Your task to perform on an android device: Open notification settings Image 0: 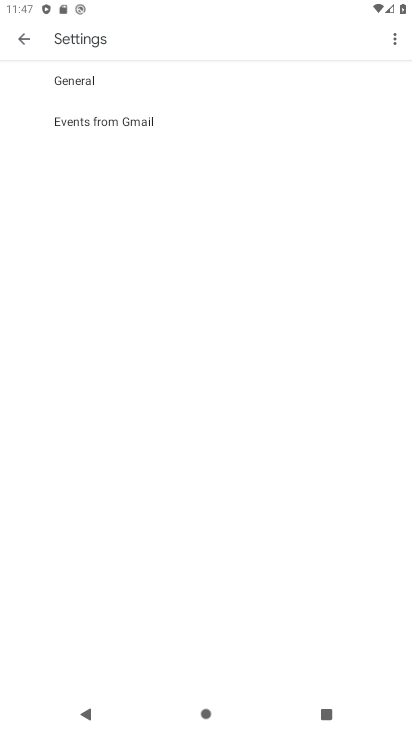
Step 0: press home button
Your task to perform on an android device: Open notification settings Image 1: 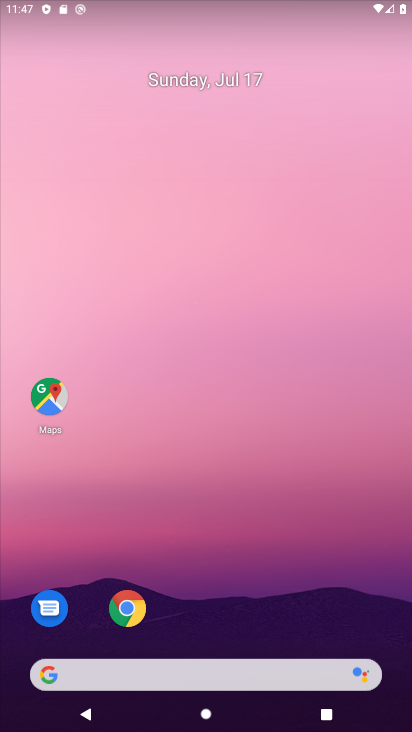
Step 1: drag from (226, 608) to (227, 51)
Your task to perform on an android device: Open notification settings Image 2: 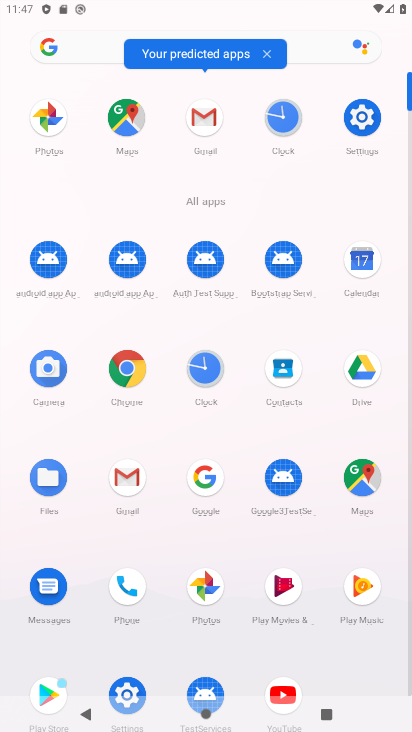
Step 2: click (348, 117)
Your task to perform on an android device: Open notification settings Image 3: 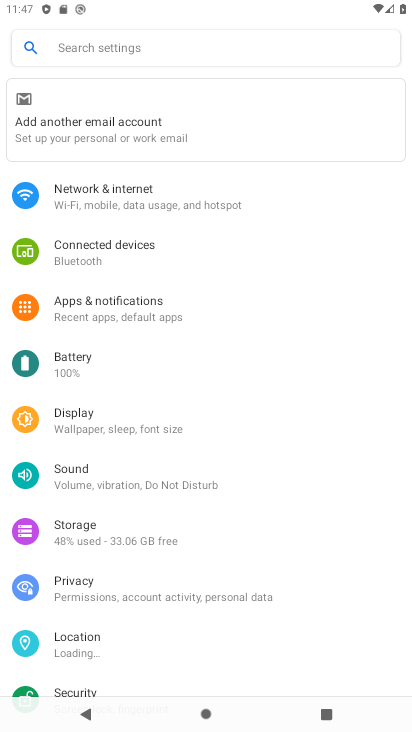
Step 3: click (161, 315)
Your task to perform on an android device: Open notification settings Image 4: 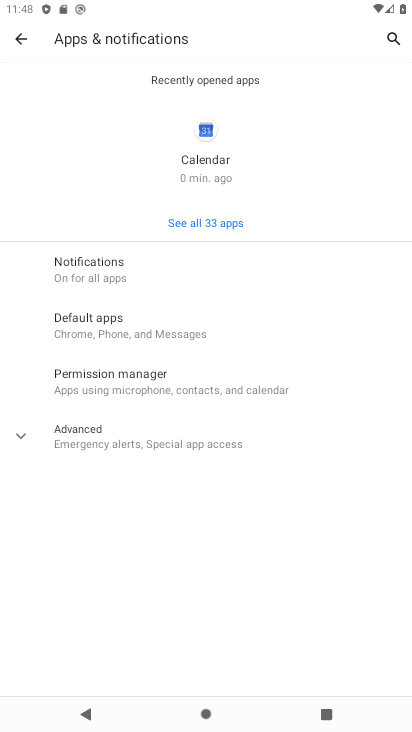
Step 4: click (108, 275)
Your task to perform on an android device: Open notification settings Image 5: 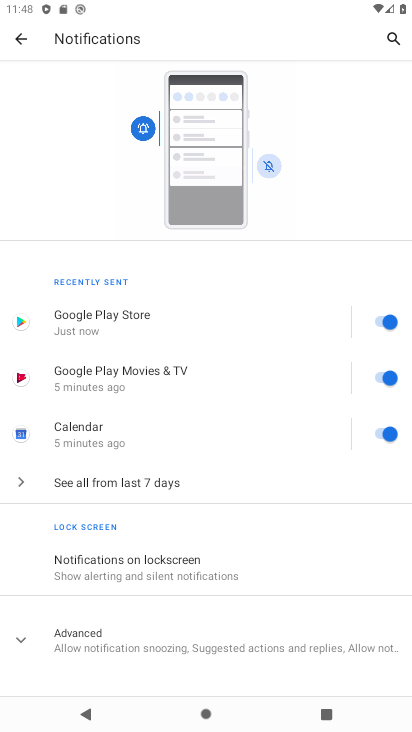
Step 5: task complete